Your task to perform on an android device: see sites visited before in the chrome app Image 0: 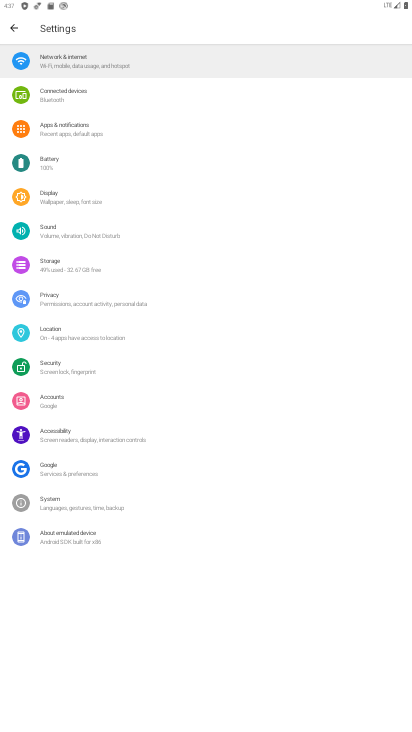
Step 0: press home button
Your task to perform on an android device: see sites visited before in the chrome app Image 1: 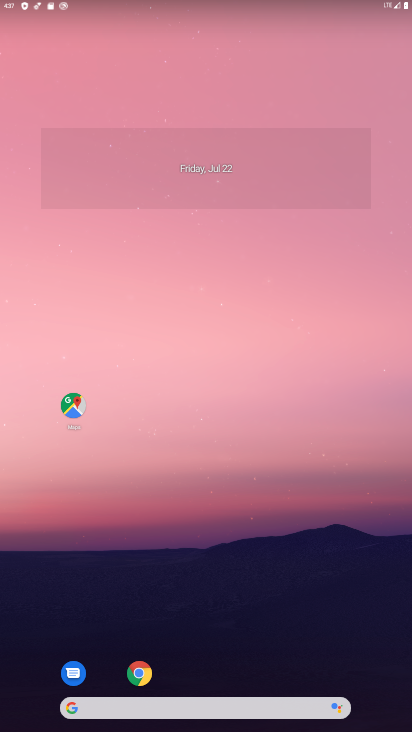
Step 1: click (143, 671)
Your task to perform on an android device: see sites visited before in the chrome app Image 2: 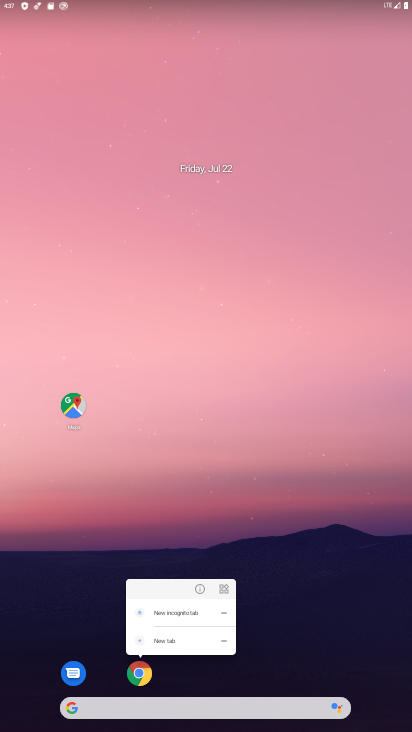
Step 2: click (139, 674)
Your task to perform on an android device: see sites visited before in the chrome app Image 3: 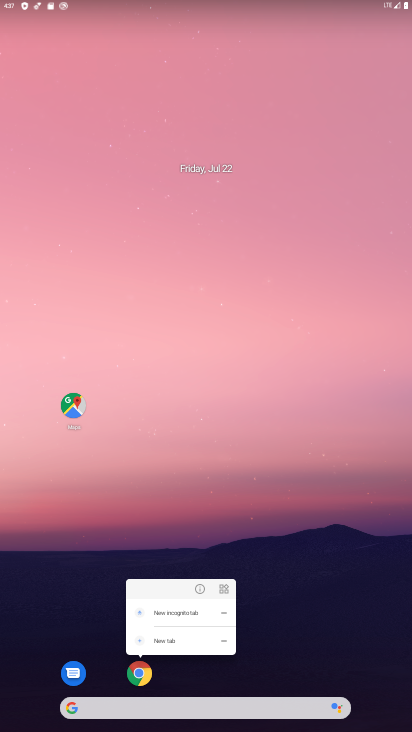
Step 3: click (139, 674)
Your task to perform on an android device: see sites visited before in the chrome app Image 4: 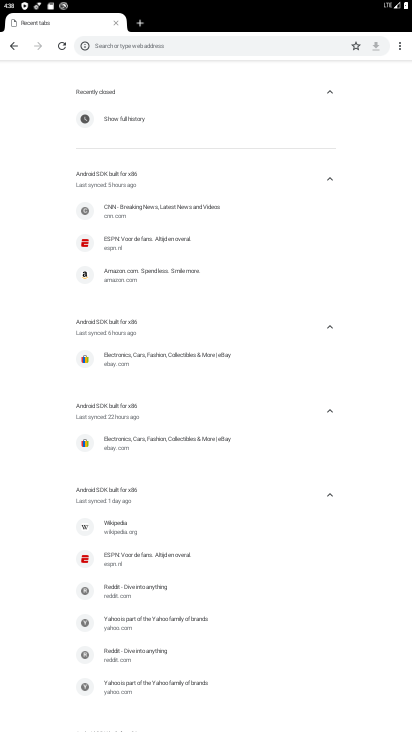
Step 4: task complete